Your task to perform on an android device: What's the weather? Image 0: 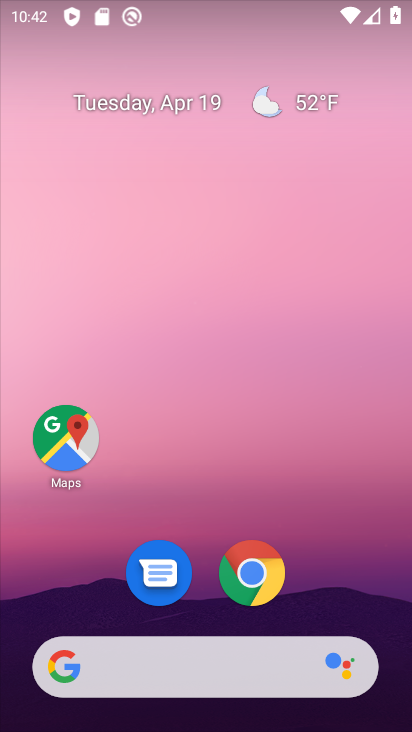
Step 0: click (266, 99)
Your task to perform on an android device: What's the weather? Image 1: 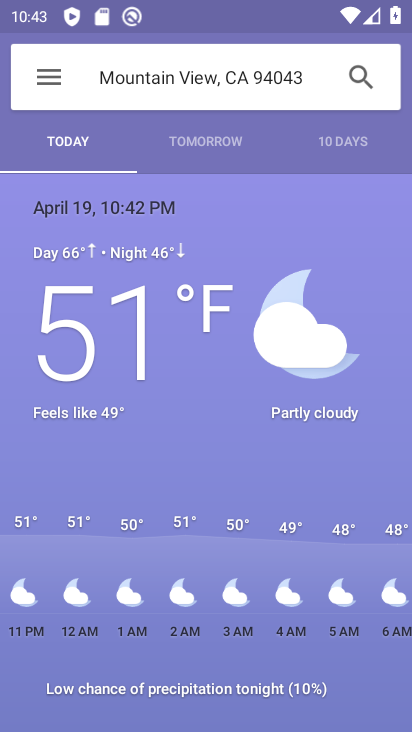
Step 1: task complete